Your task to perform on an android device: Open the calendar and show me this week's events? Image 0: 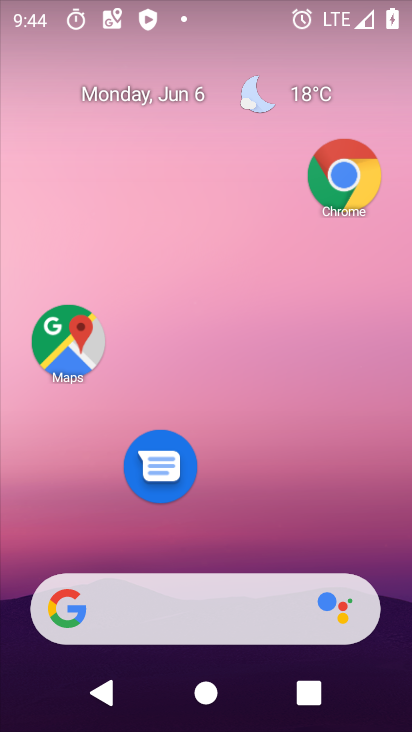
Step 0: click (269, 216)
Your task to perform on an android device: Open the calendar and show me this week's events? Image 1: 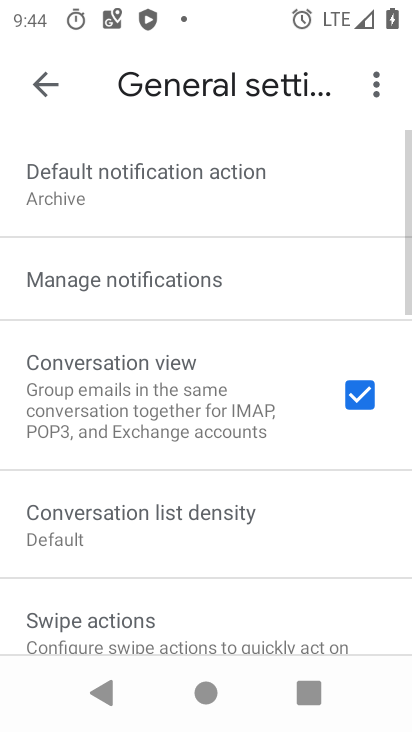
Step 1: press home button
Your task to perform on an android device: Open the calendar and show me this week's events? Image 2: 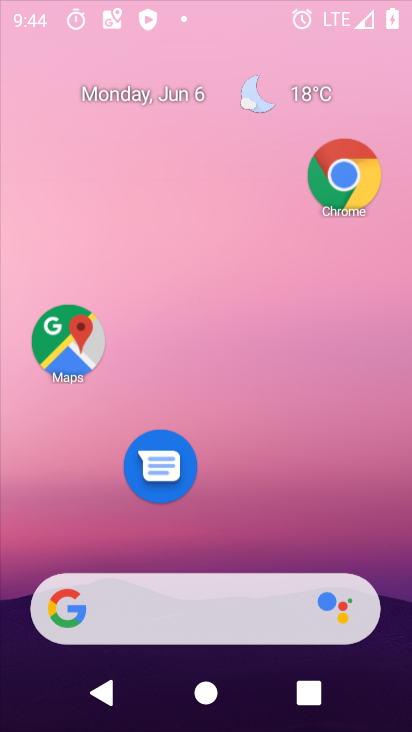
Step 2: drag from (219, 495) to (317, 87)
Your task to perform on an android device: Open the calendar and show me this week's events? Image 3: 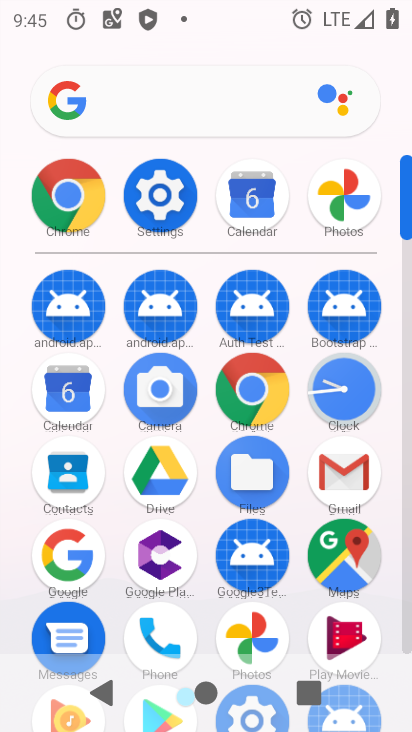
Step 3: drag from (197, 663) to (148, 98)
Your task to perform on an android device: Open the calendar and show me this week's events? Image 4: 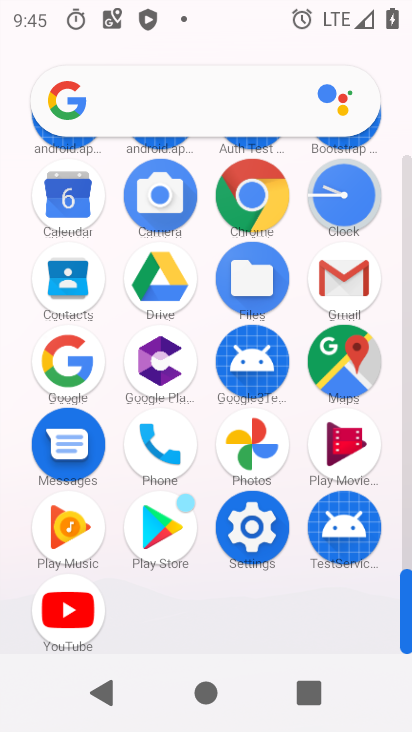
Step 4: click (60, 194)
Your task to perform on an android device: Open the calendar and show me this week's events? Image 5: 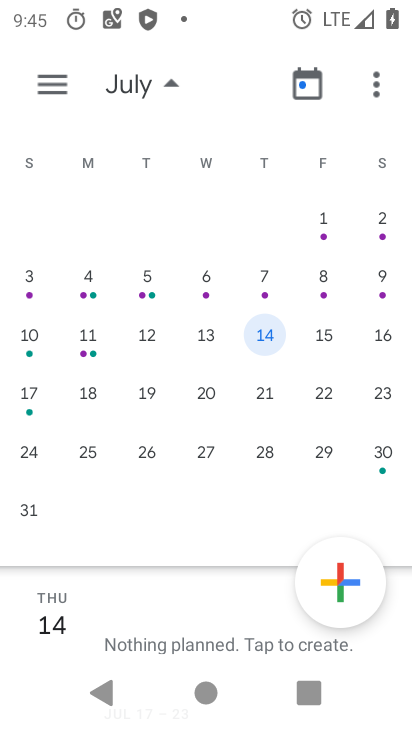
Step 5: drag from (209, 532) to (268, 143)
Your task to perform on an android device: Open the calendar and show me this week's events? Image 6: 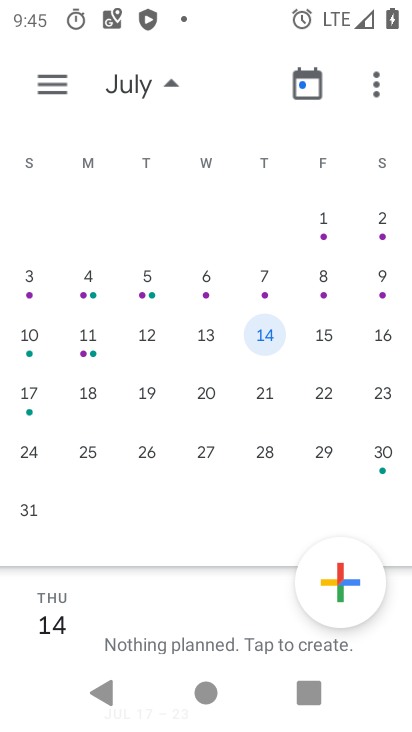
Step 6: drag from (27, 342) to (407, 207)
Your task to perform on an android device: Open the calendar and show me this week's events? Image 7: 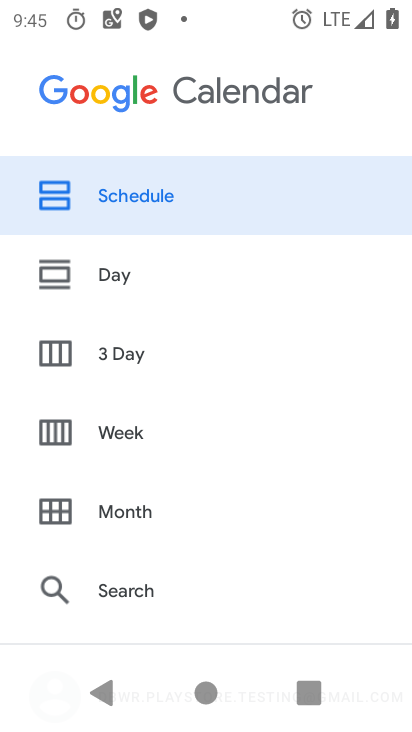
Step 7: drag from (117, 534) to (231, 65)
Your task to perform on an android device: Open the calendar and show me this week's events? Image 8: 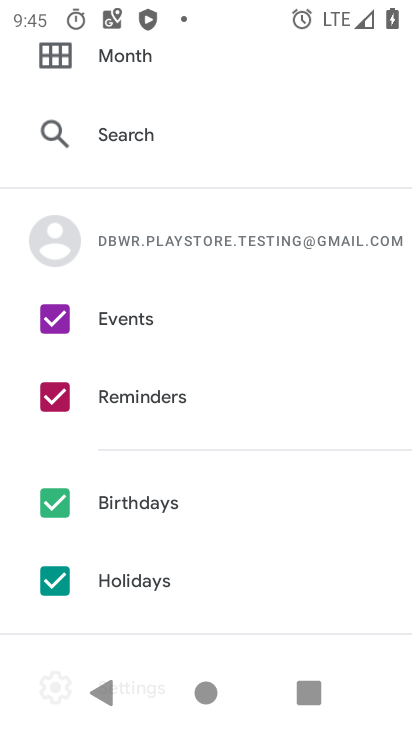
Step 8: press back button
Your task to perform on an android device: Open the calendar and show me this week's events? Image 9: 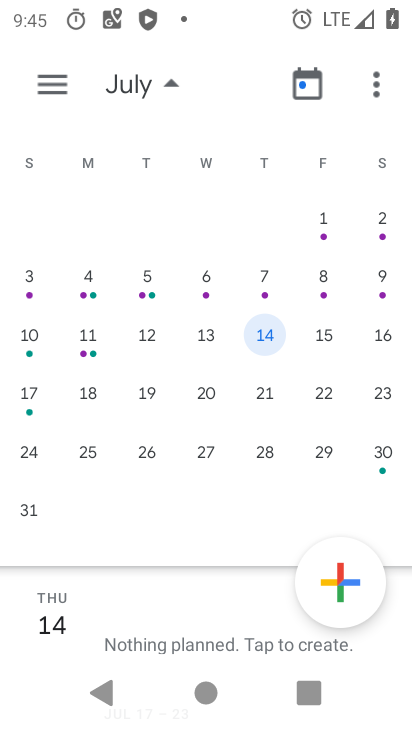
Step 9: drag from (56, 371) to (394, 224)
Your task to perform on an android device: Open the calendar and show me this week's events? Image 10: 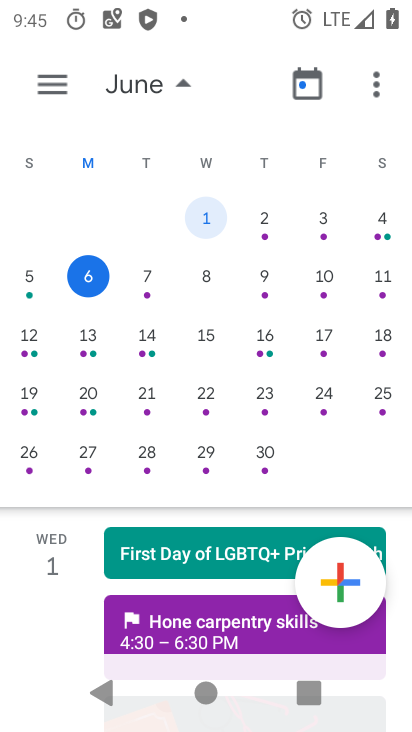
Step 10: click (327, 286)
Your task to perform on an android device: Open the calendar and show me this week's events? Image 11: 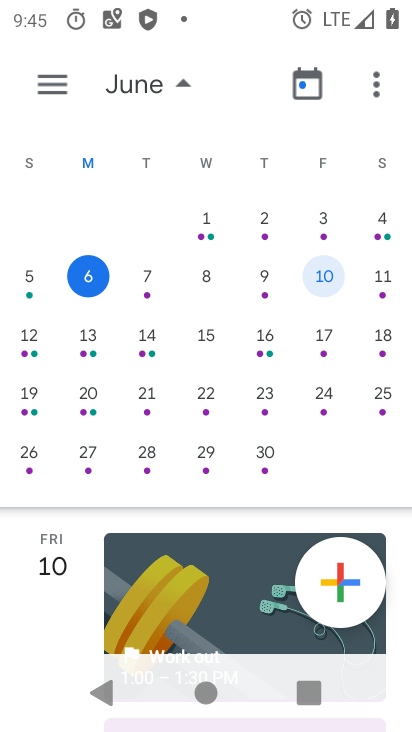
Step 11: click (298, 160)
Your task to perform on an android device: Open the calendar and show me this week's events? Image 12: 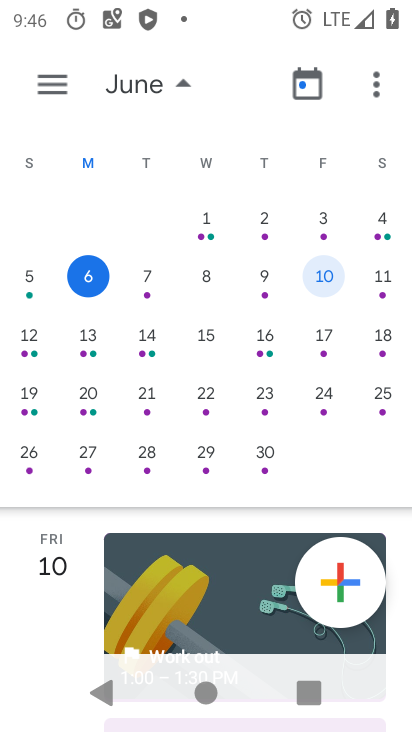
Step 12: task complete